Your task to perform on an android device: Go to notification settings Image 0: 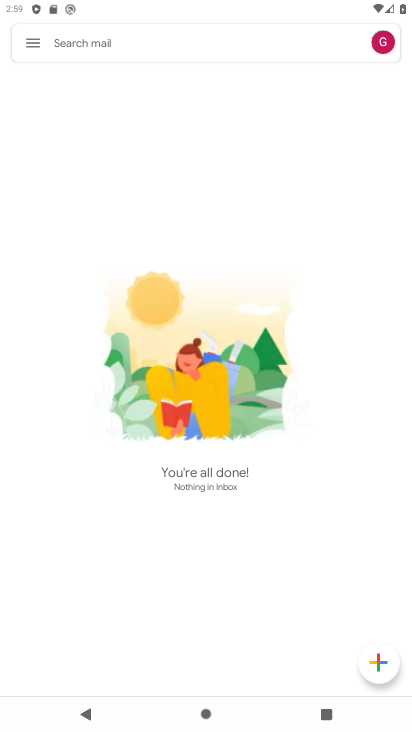
Step 0: press home button
Your task to perform on an android device: Go to notification settings Image 1: 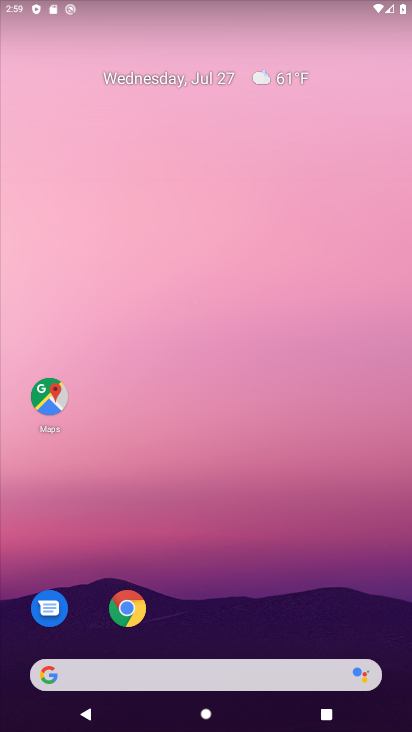
Step 1: drag from (226, 577) to (245, 49)
Your task to perform on an android device: Go to notification settings Image 2: 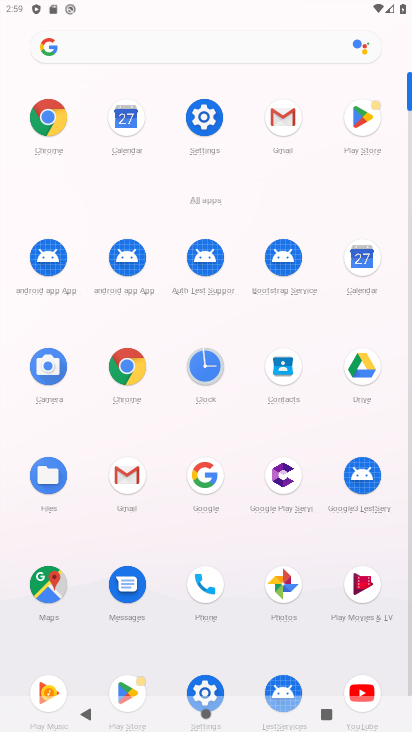
Step 2: click (212, 128)
Your task to perform on an android device: Go to notification settings Image 3: 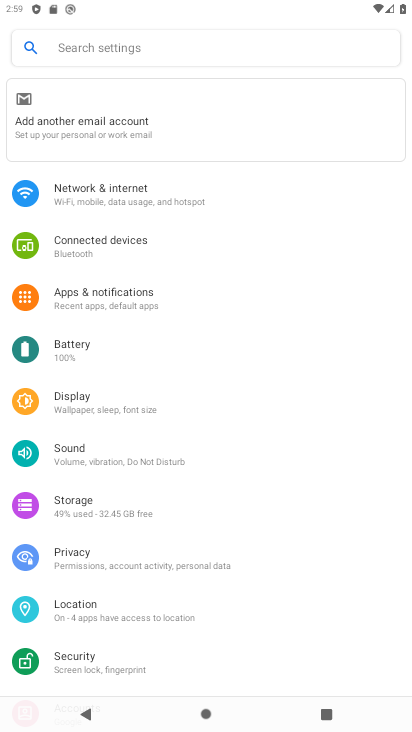
Step 3: click (99, 292)
Your task to perform on an android device: Go to notification settings Image 4: 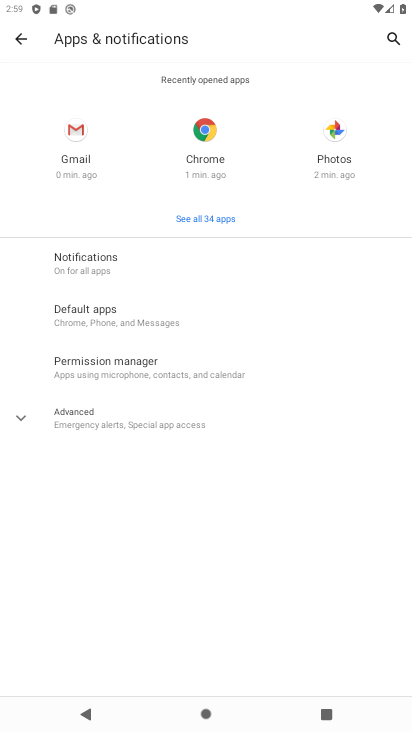
Step 4: click (121, 255)
Your task to perform on an android device: Go to notification settings Image 5: 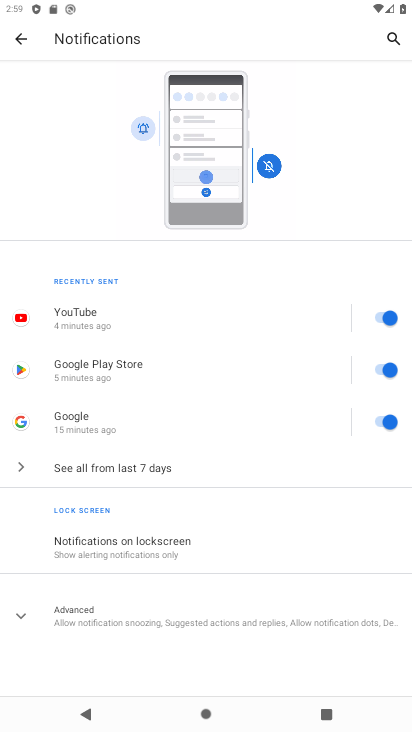
Step 5: task complete